Your task to perform on an android device: Go to Google maps Image 0: 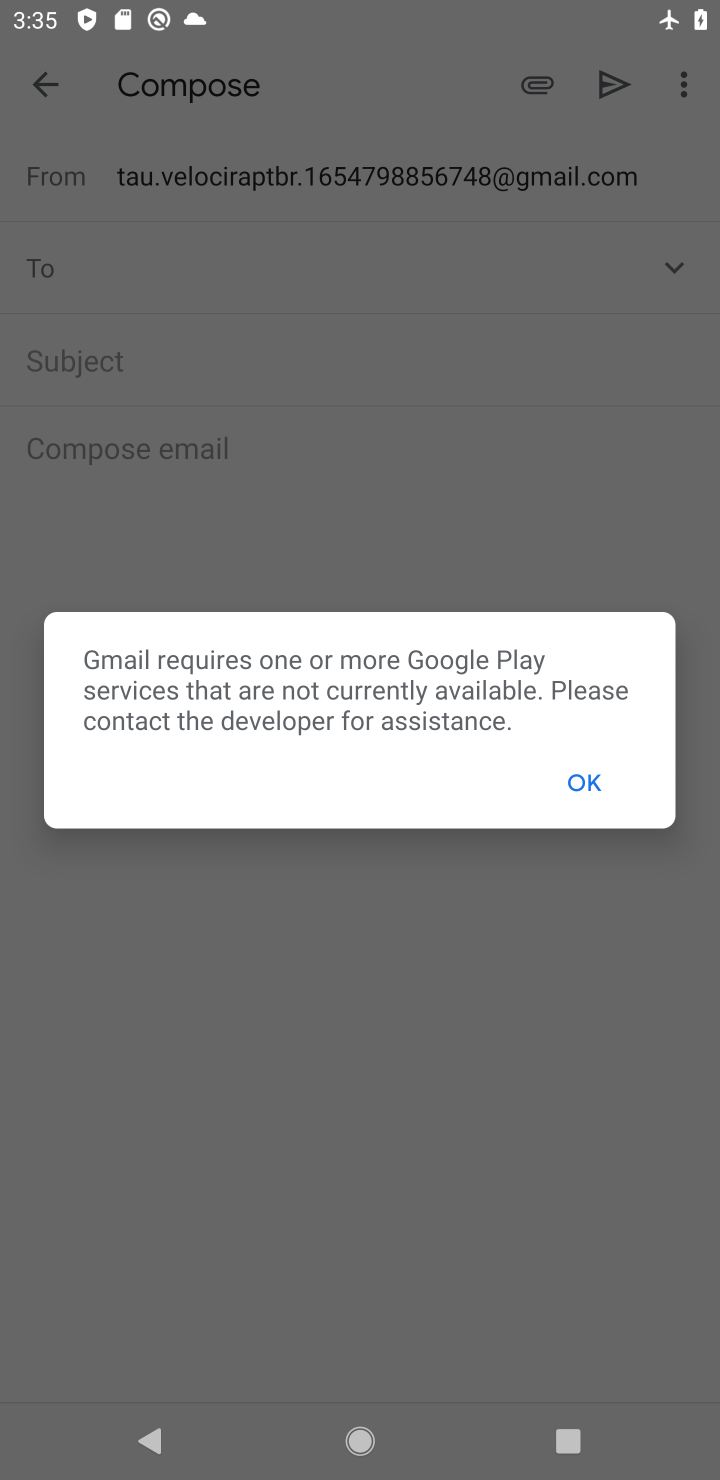
Step 0: press back button
Your task to perform on an android device: Go to Google maps Image 1: 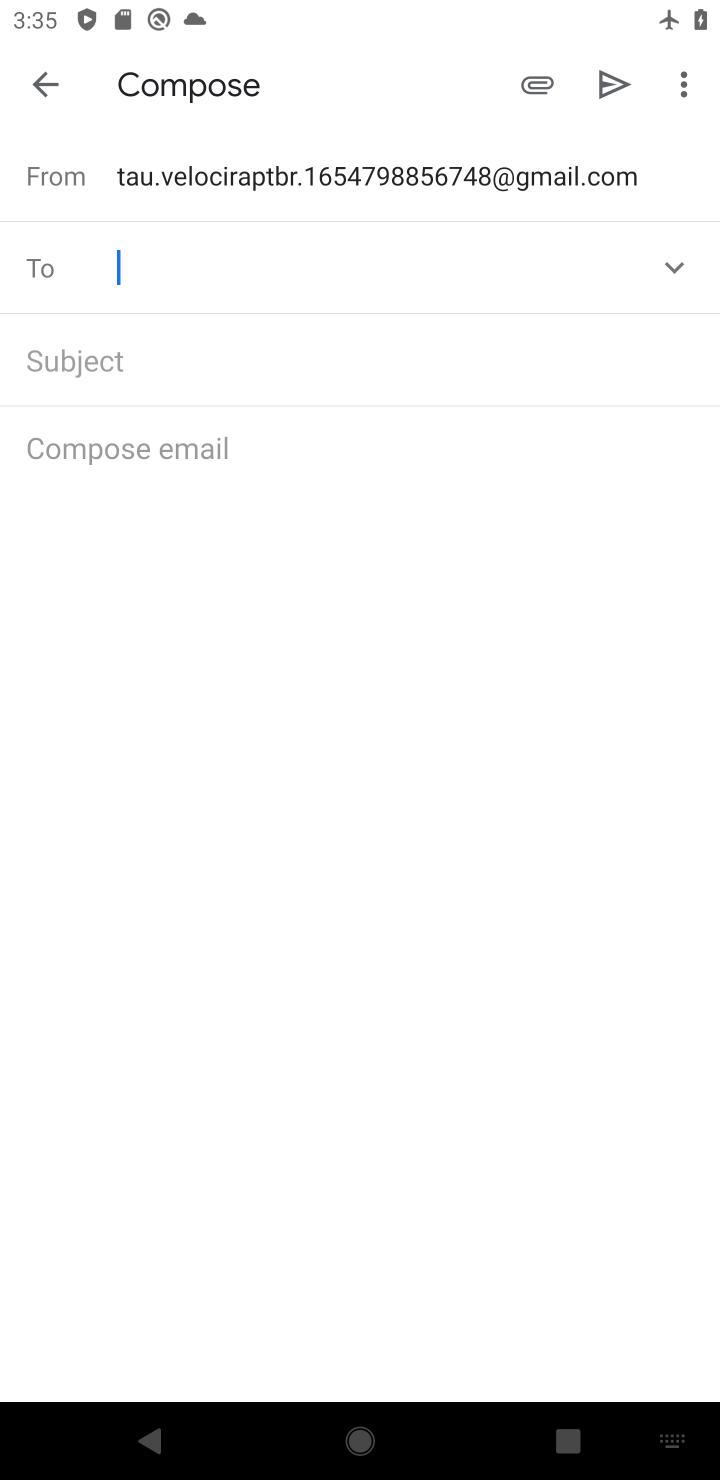
Step 1: press home button
Your task to perform on an android device: Go to Google maps Image 2: 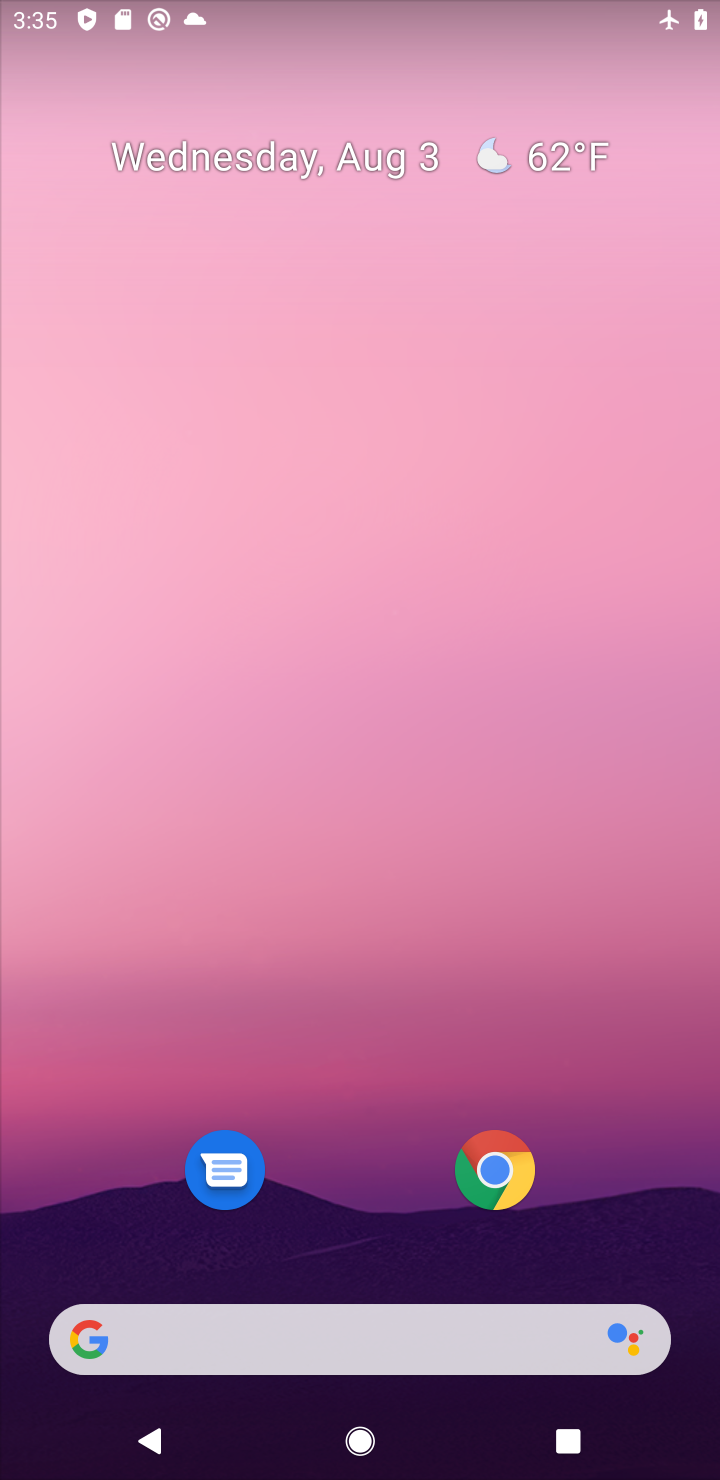
Step 2: drag from (353, 1073) to (439, 184)
Your task to perform on an android device: Go to Google maps Image 3: 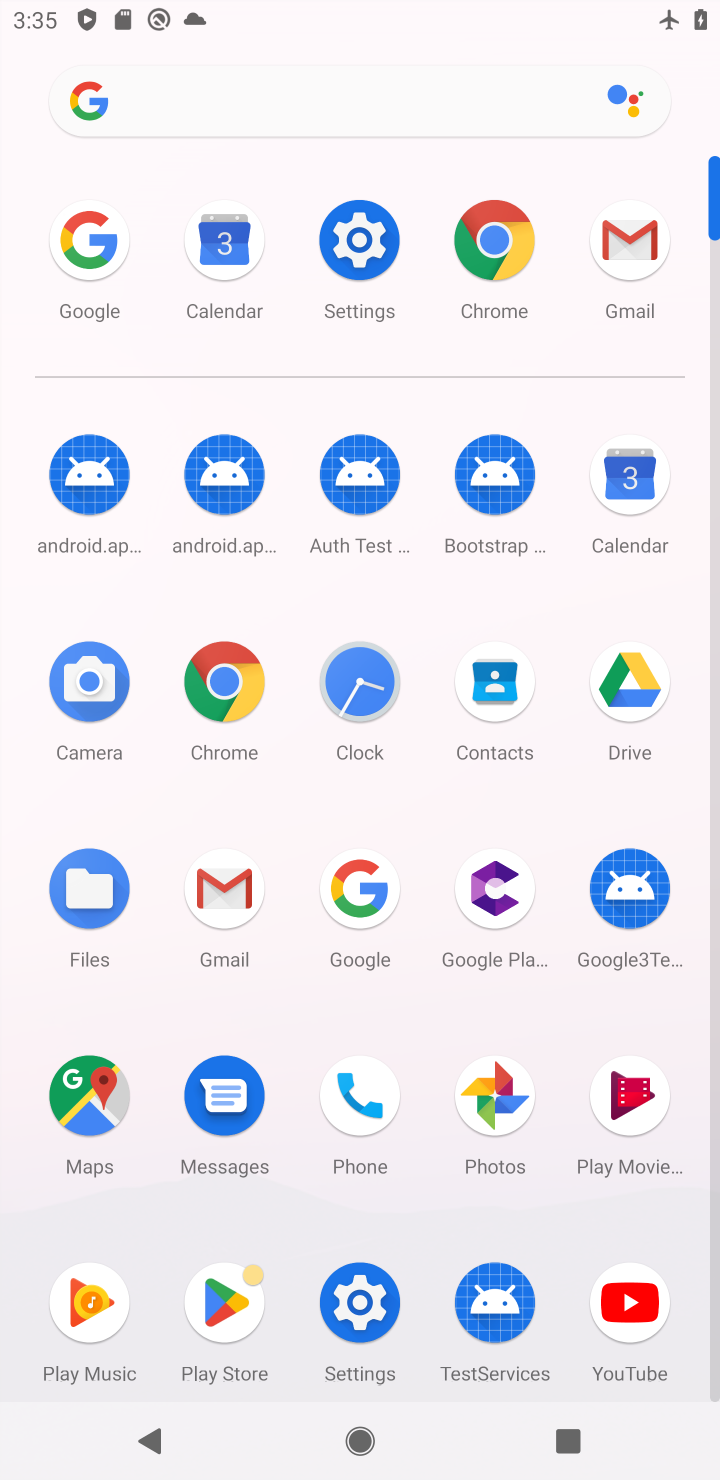
Step 3: click (73, 1145)
Your task to perform on an android device: Go to Google maps Image 4: 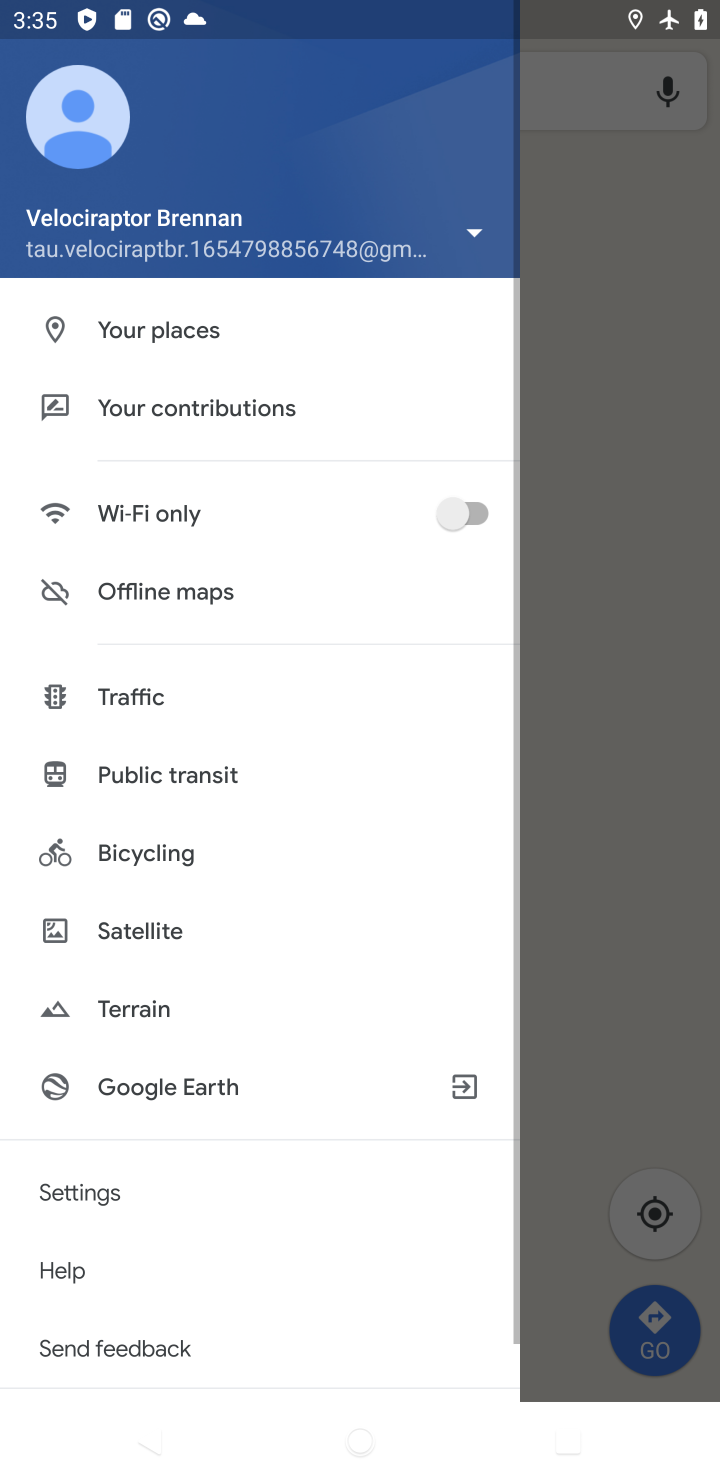
Step 4: task complete